Your task to perform on an android device: change text size in settings app Image 0: 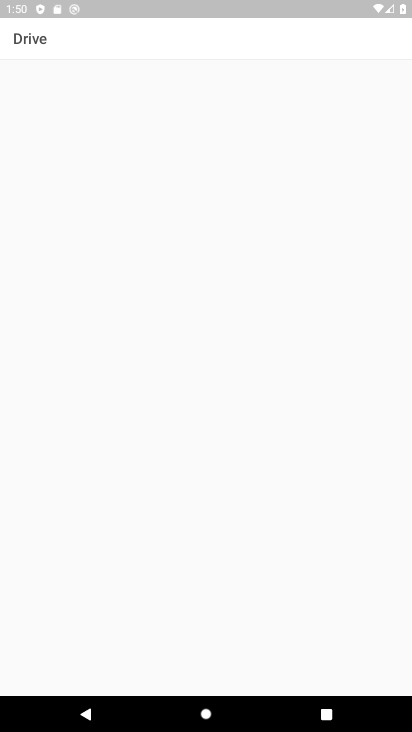
Step 0: press home button
Your task to perform on an android device: change text size in settings app Image 1: 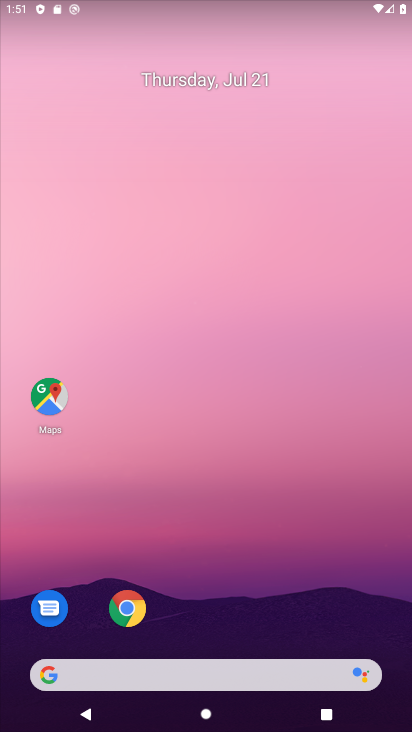
Step 1: drag from (218, 619) to (227, 202)
Your task to perform on an android device: change text size in settings app Image 2: 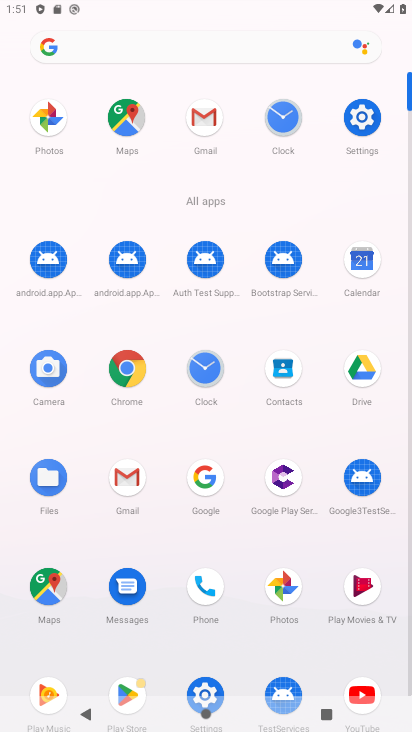
Step 2: click (365, 134)
Your task to perform on an android device: change text size in settings app Image 3: 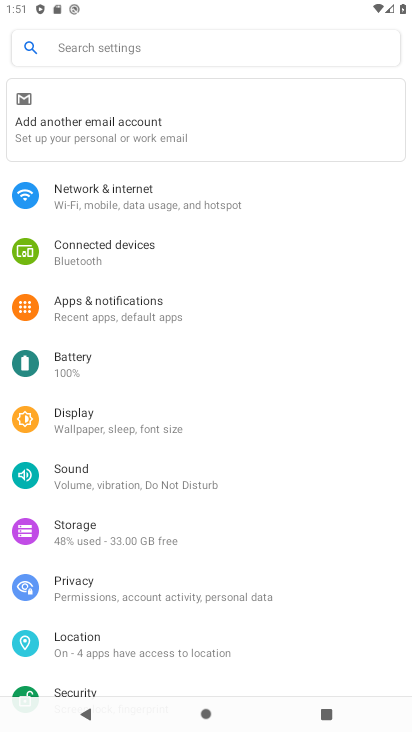
Step 3: click (111, 407)
Your task to perform on an android device: change text size in settings app Image 4: 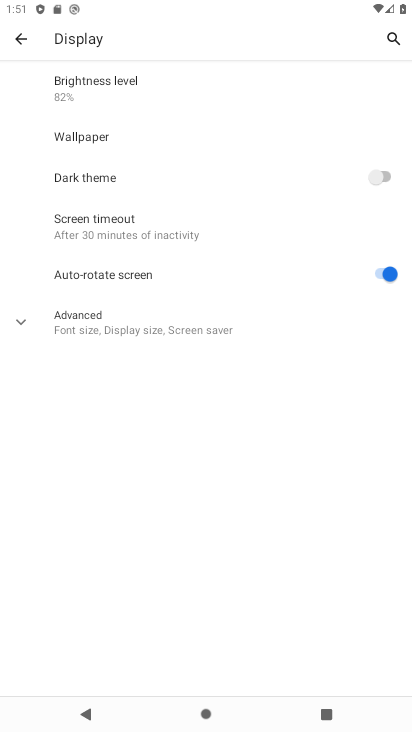
Step 4: click (106, 319)
Your task to perform on an android device: change text size in settings app Image 5: 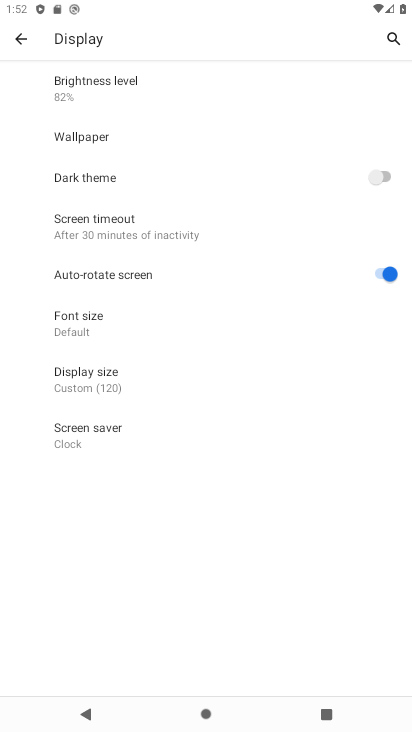
Step 5: click (118, 330)
Your task to perform on an android device: change text size in settings app Image 6: 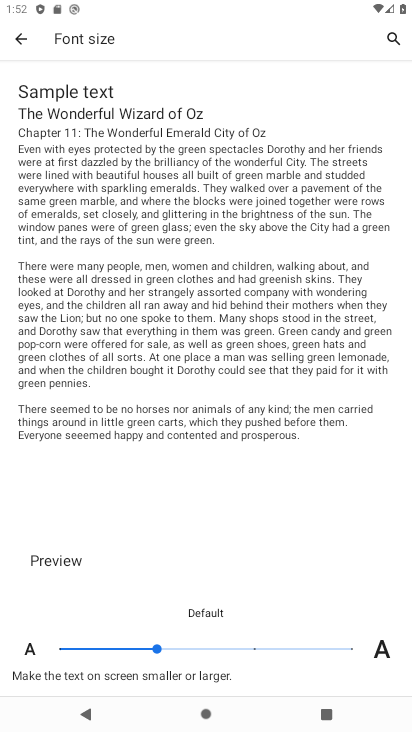
Step 6: click (341, 642)
Your task to perform on an android device: change text size in settings app Image 7: 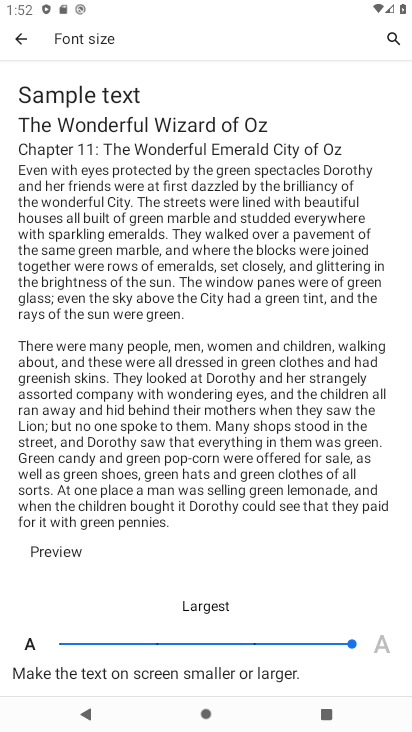
Step 7: task complete